Your task to perform on an android device: Open Google Maps and go to "Timeline" Image 0: 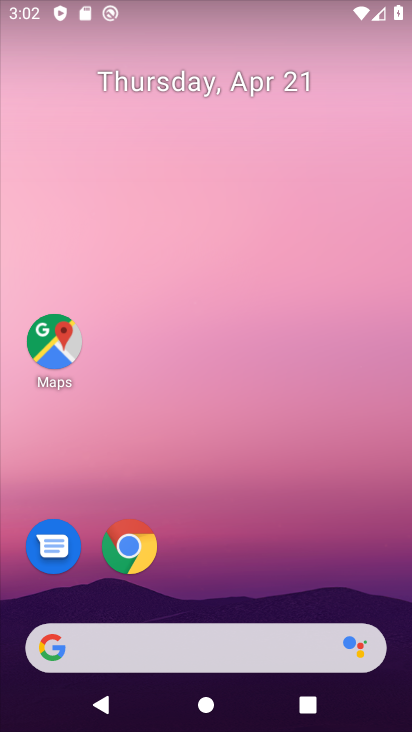
Step 0: drag from (316, 594) to (321, 34)
Your task to perform on an android device: Open Google Maps and go to "Timeline" Image 1: 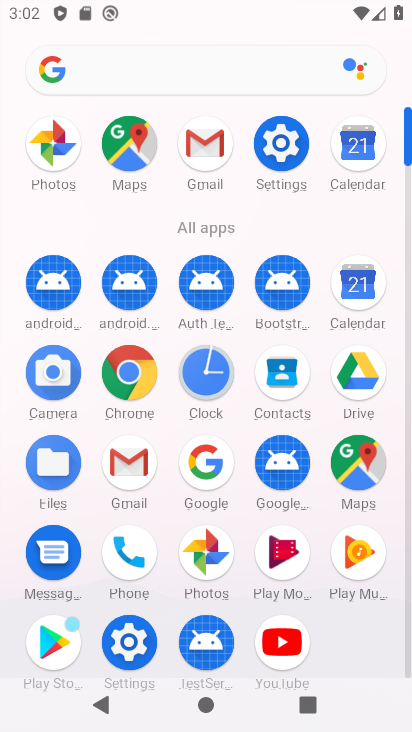
Step 1: click (343, 457)
Your task to perform on an android device: Open Google Maps and go to "Timeline" Image 2: 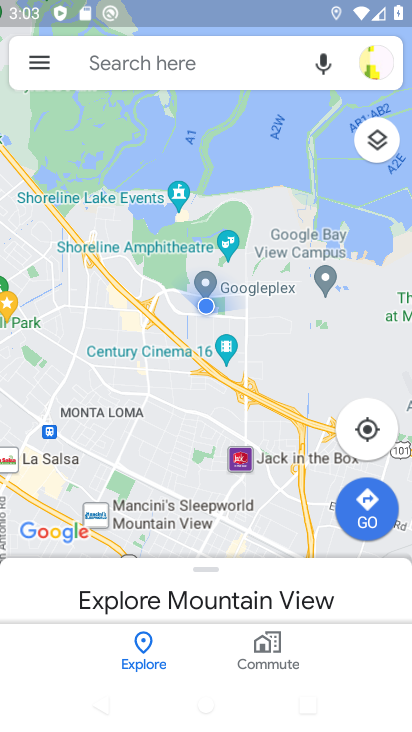
Step 2: click (43, 55)
Your task to perform on an android device: Open Google Maps and go to "Timeline" Image 3: 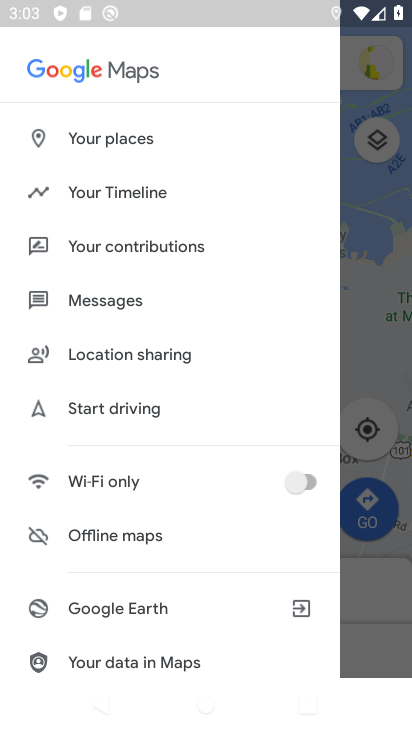
Step 3: click (162, 184)
Your task to perform on an android device: Open Google Maps and go to "Timeline" Image 4: 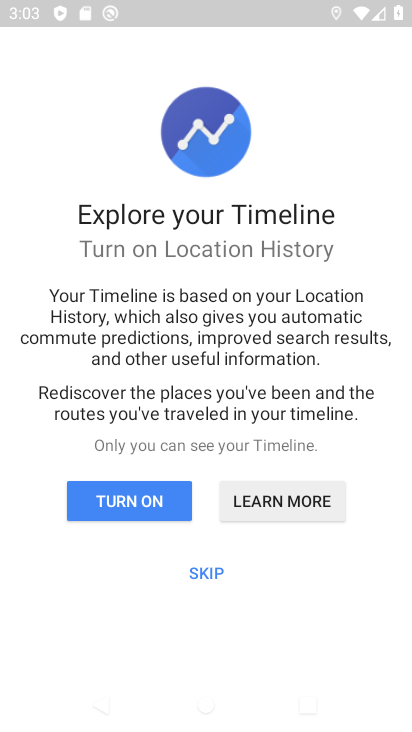
Step 4: click (200, 566)
Your task to perform on an android device: Open Google Maps and go to "Timeline" Image 5: 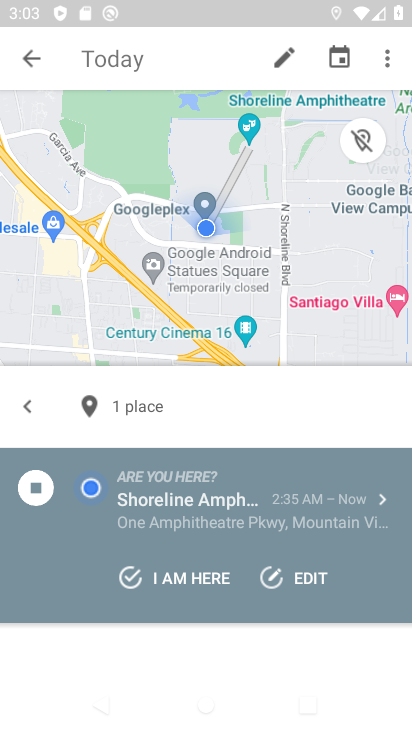
Step 5: task complete